Your task to perform on an android device: delete the emails in spam in the gmail app Image 0: 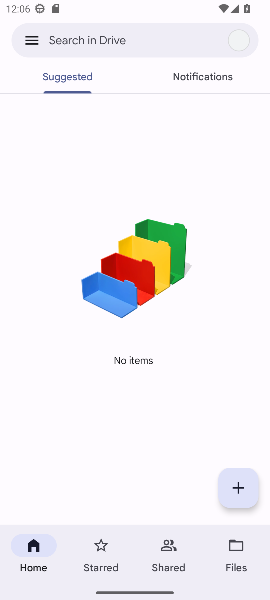
Step 0: press home button
Your task to perform on an android device: delete the emails in spam in the gmail app Image 1: 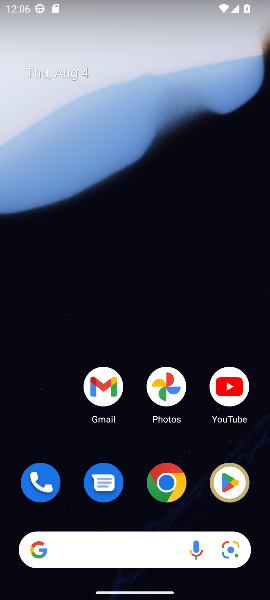
Step 1: click (116, 385)
Your task to perform on an android device: delete the emails in spam in the gmail app Image 2: 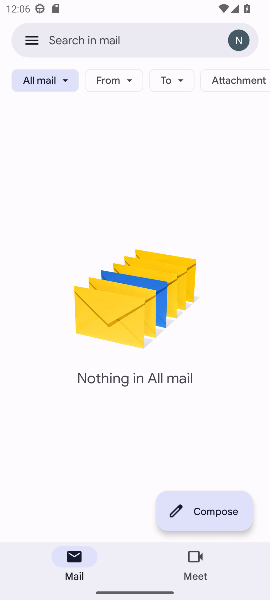
Step 2: click (36, 47)
Your task to perform on an android device: delete the emails in spam in the gmail app Image 3: 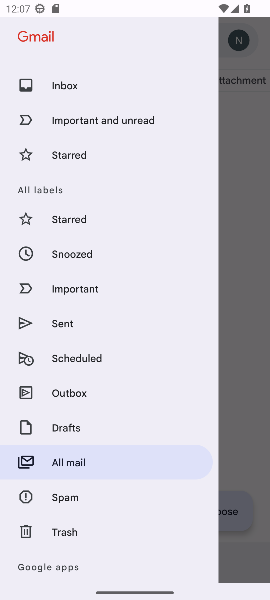
Step 3: click (78, 508)
Your task to perform on an android device: delete the emails in spam in the gmail app Image 4: 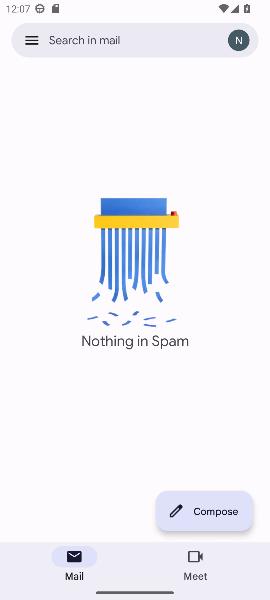
Step 4: click (36, 48)
Your task to perform on an android device: delete the emails in spam in the gmail app Image 5: 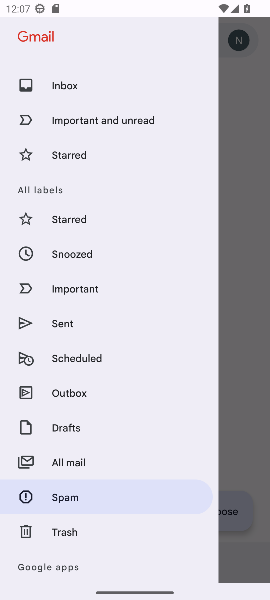
Step 5: click (104, 493)
Your task to perform on an android device: delete the emails in spam in the gmail app Image 6: 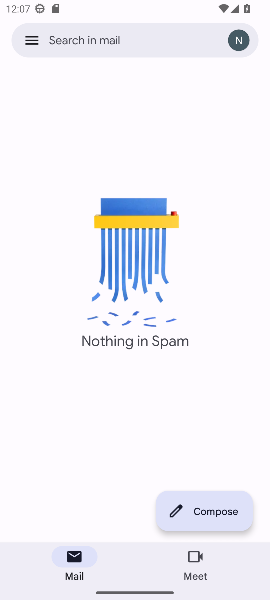
Step 6: task complete